Your task to perform on an android device: Open Google Maps Image 0: 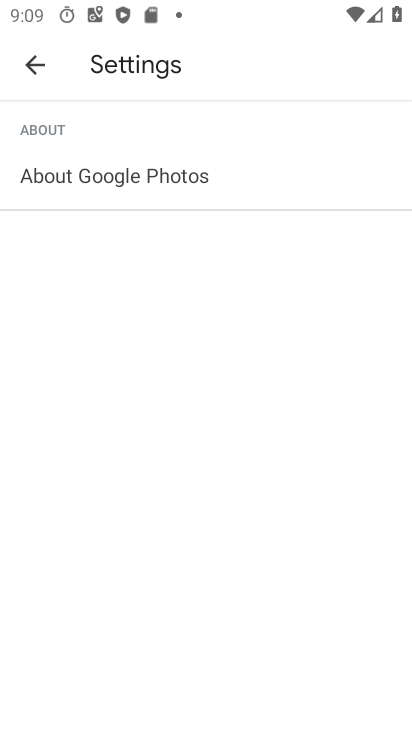
Step 0: press home button
Your task to perform on an android device: Open Google Maps Image 1: 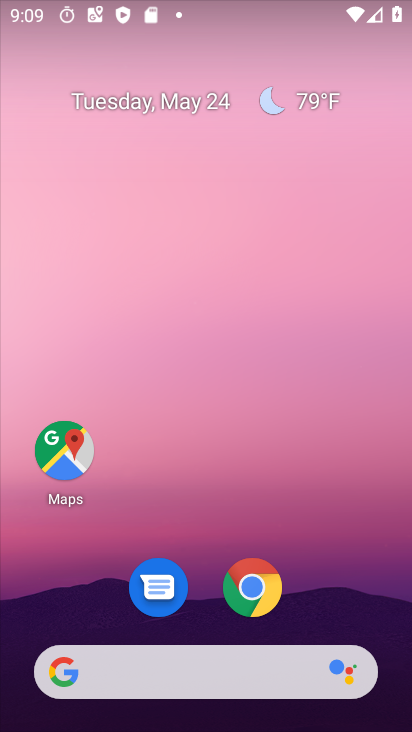
Step 1: click (63, 452)
Your task to perform on an android device: Open Google Maps Image 2: 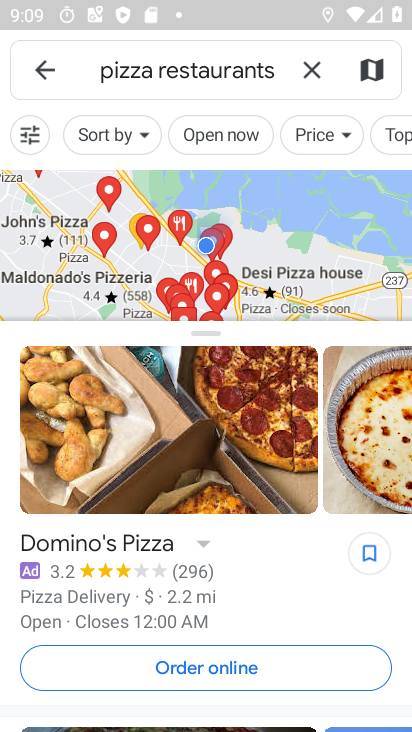
Step 2: click (309, 70)
Your task to perform on an android device: Open Google Maps Image 3: 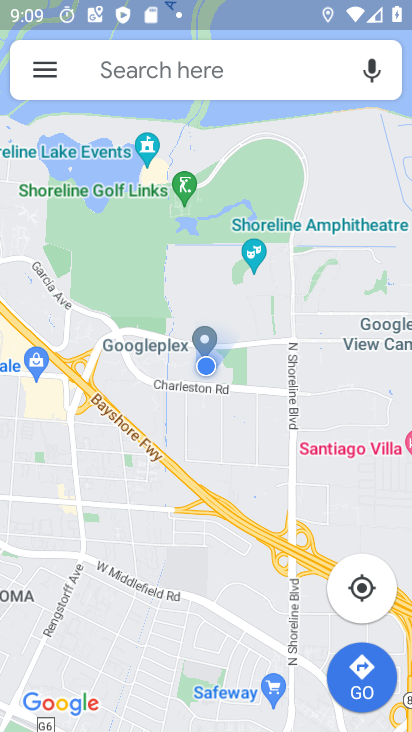
Step 3: task complete